Your task to perform on an android device: Open wifi settings Image 0: 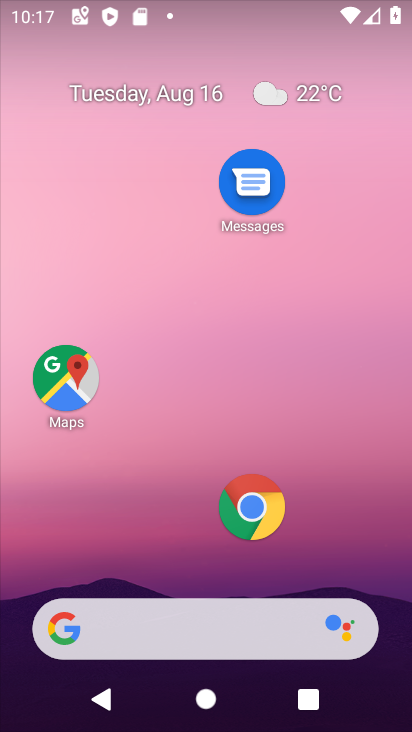
Step 0: drag from (153, 1) to (182, 363)
Your task to perform on an android device: Open wifi settings Image 1: 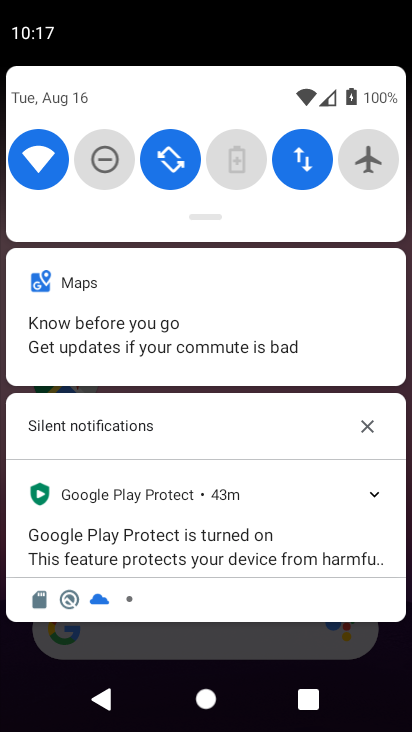
Step 1: click (36, 156)
Your task to perform on an android device: Open wifi settings Image 2: 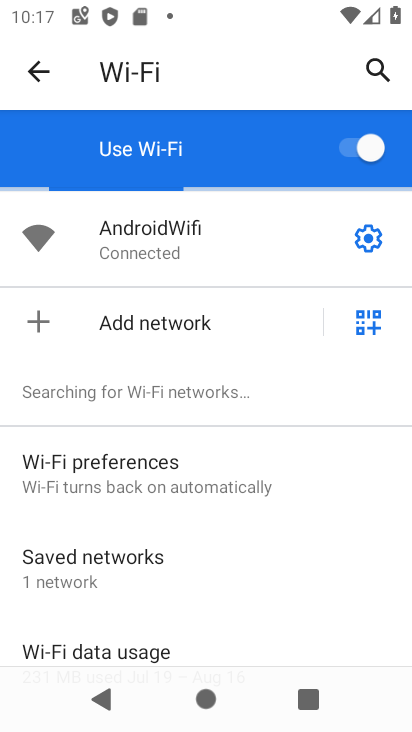
Step 2: task complete